Your task to perform on an android device: manage bookmarks in the chrome app Image 0: 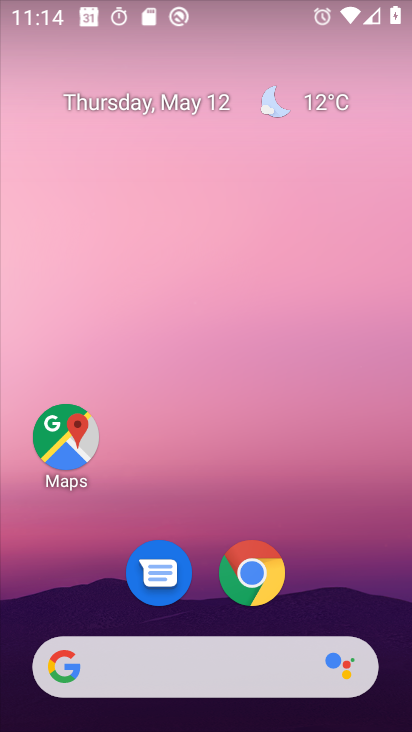
Step 0: click (247, 552)
Your task to perform on an android device: manage bookmarks in the chrome app Image 1: 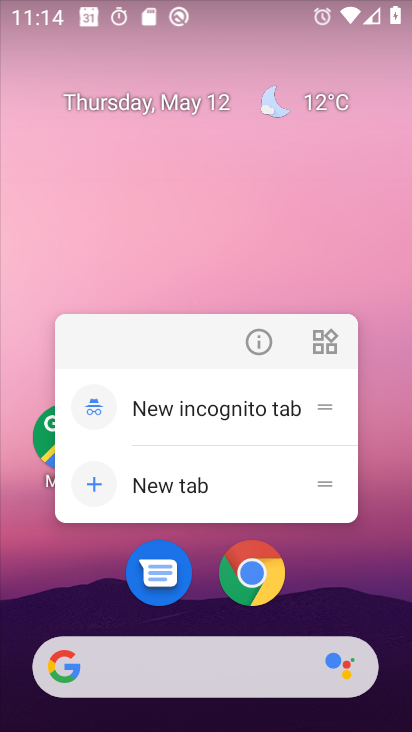
Step 1: click (260, 571)
Your task to perform on an android device: manage bookmarks in the chrome app Image 2: 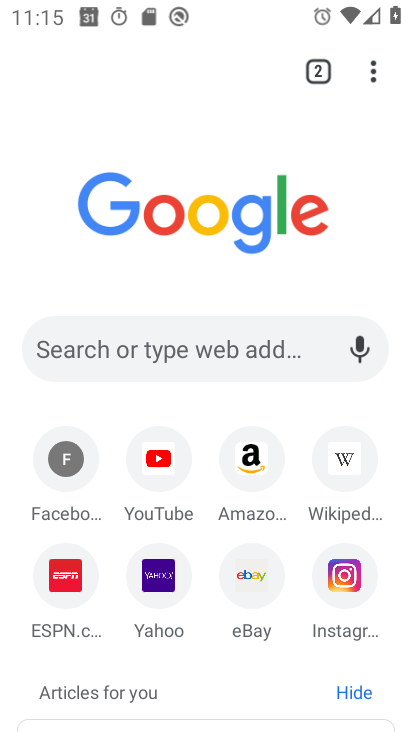
Step 2: click (375, 68)
Your task to perform on an android device: manage bookmarks in the chrome app Image 3: 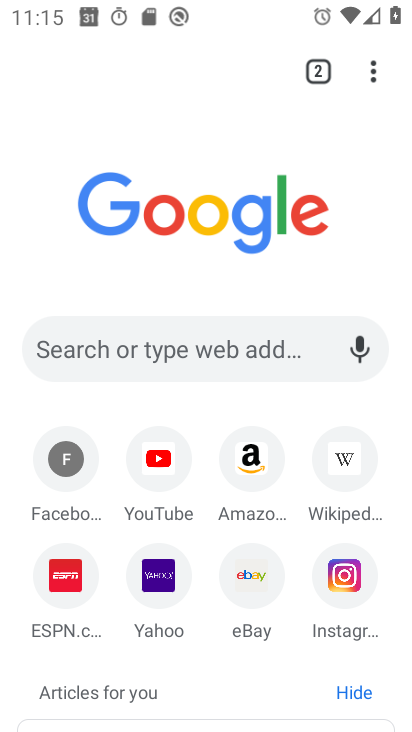
Step 3: click (375, 68)
Your task to perform on an android device: manage bookmarks in the chrome app Image 4: 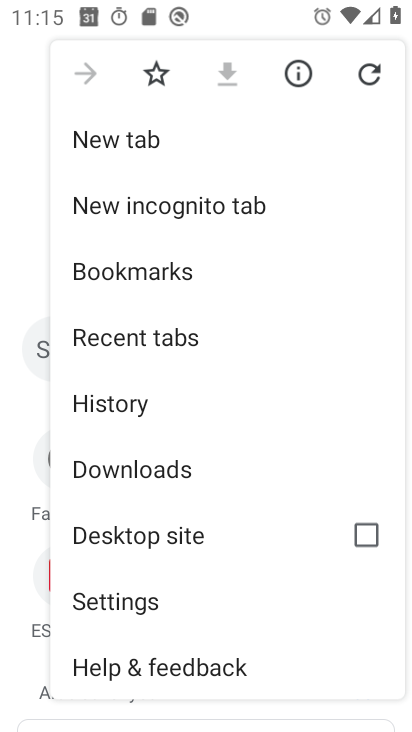
Step 4: drag from (289, 668) to (260, 380)
Your task to perform on an android device: manage bookmarks in the chrome app Image 5: 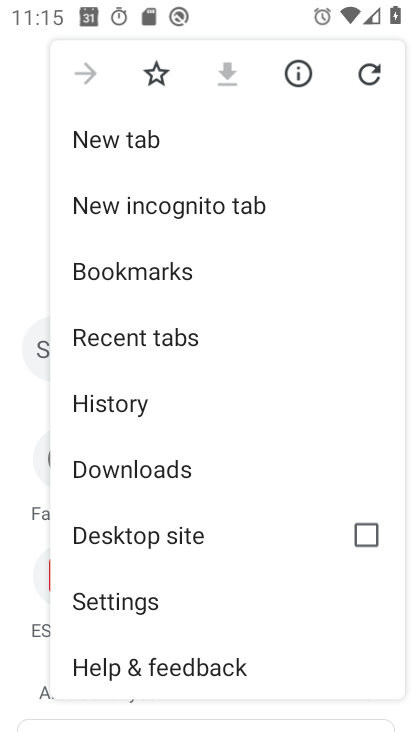
Step 5: drag from (252, 570) to (262, 357)
Your task to perform on an android device: manage bookmarks in the chrome app Image 6: 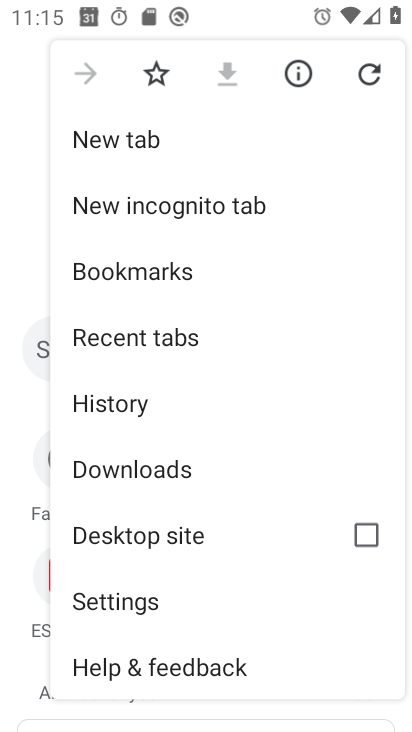
Step 6: drag from (292, 674) to (274, 370)
Your task to perform on an android device: manage bookmarks in the chrome app Image 7: 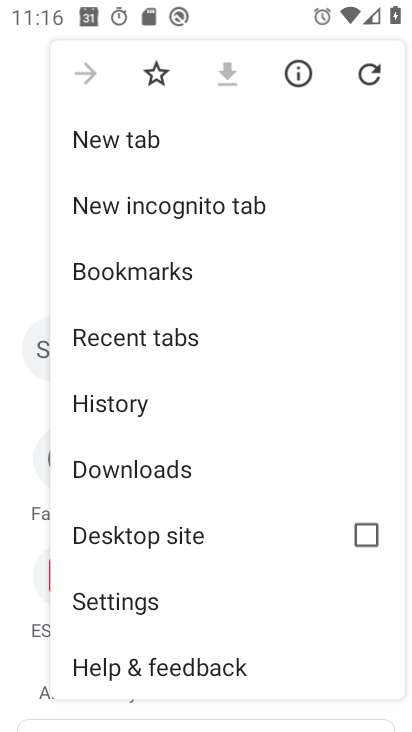
Step 7: click (121, 281)
Your task to perform on an android device: manage bookmarks in the chrome app Image 8: 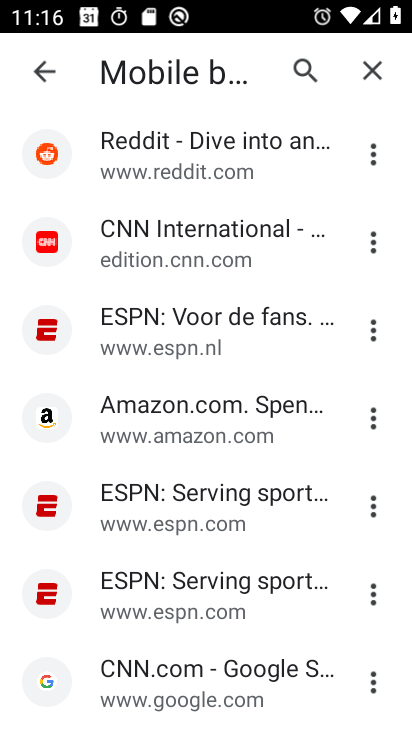
Step 8: click (371, 506)
Your task to perform on an android device: manage bookmarks in the chrome app Image 9: 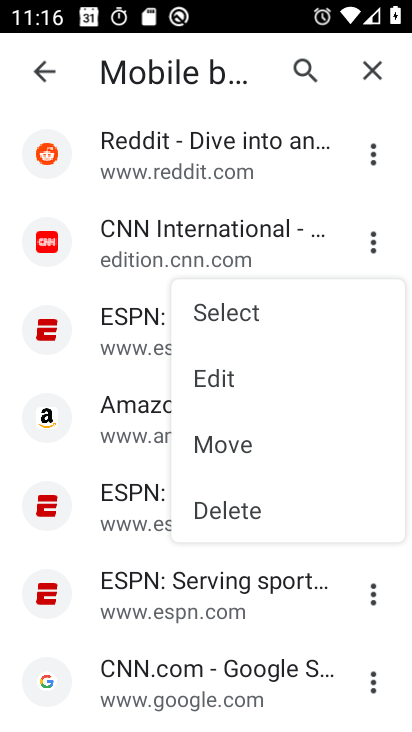
Step 9: click (205, 511)
Your task to perform on an android device: manage bookmarks in the chrome app Image 10: 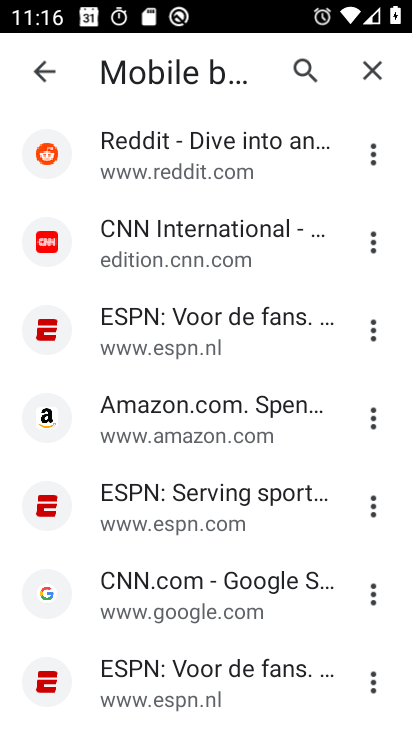
Step 10: task complete